Your task to perform on an android device: Open eBay Image 0: 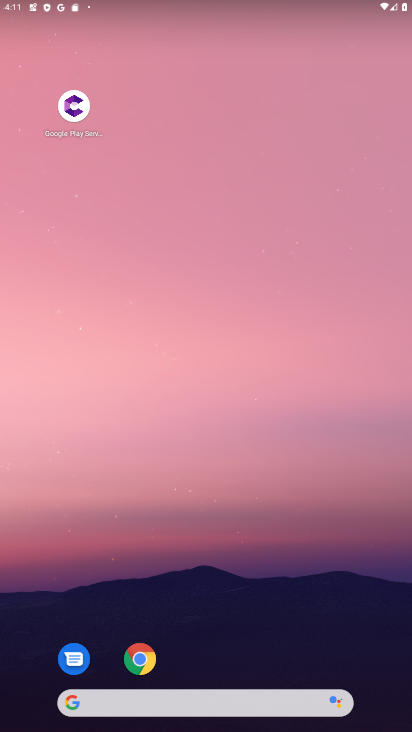
Step 0: click (147, 657)
Your task to perform on an android device: Open eBay Image 1: 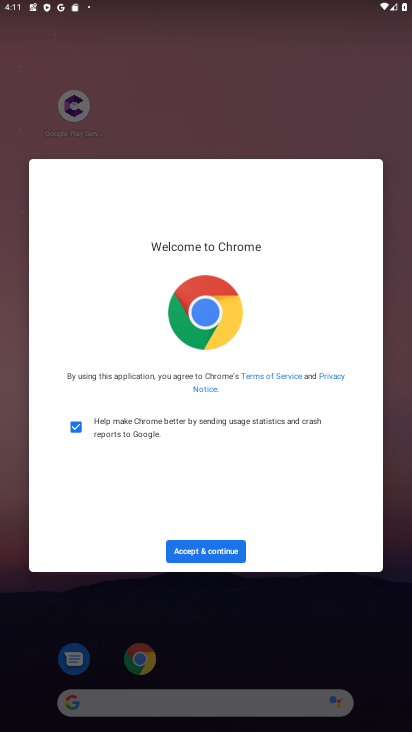
Step 1: click (217, 555)
Your task to perform on an android device: Open eBay Image 2: 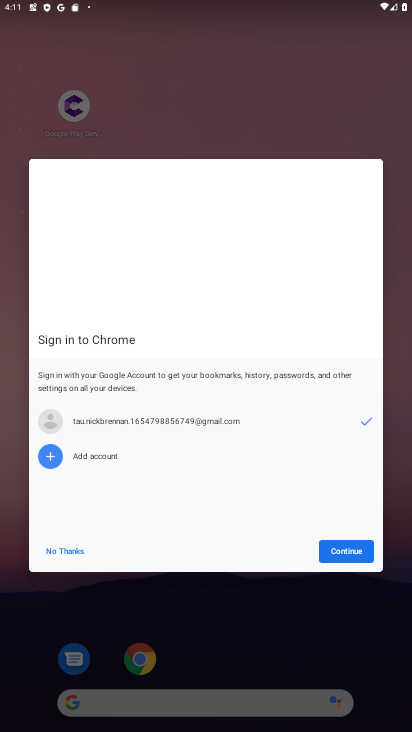
Step 2: click (364, 561)
Your task to perform on an android device: Open eBay Image 3: 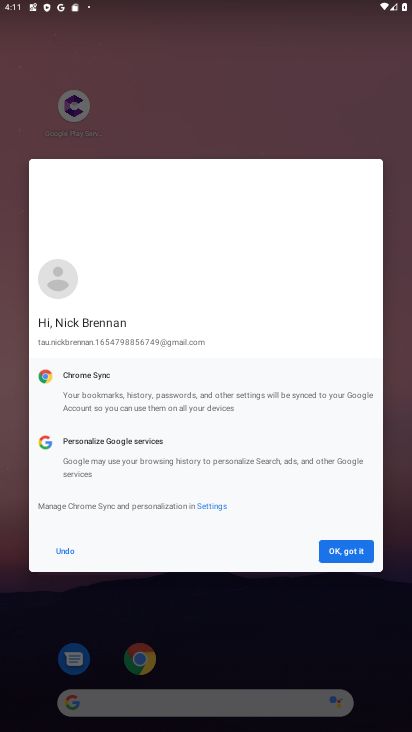
Step 3: click (364, 561)
Your task to perform on an android device: Open eBay Image 4: 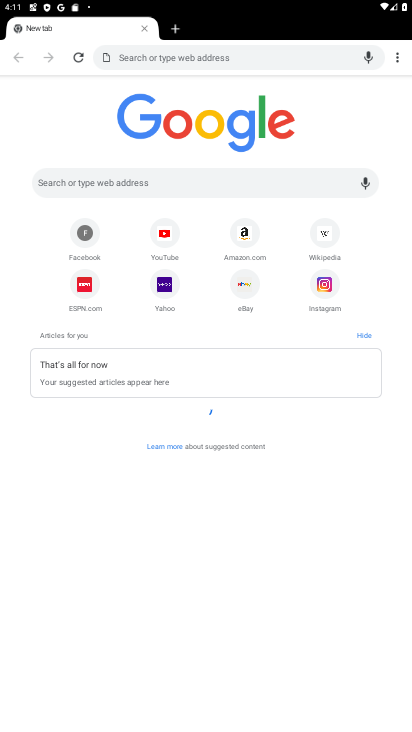
Step 4: click (255, 299)
Your task to perform on an android device: Open eBay Image 5: 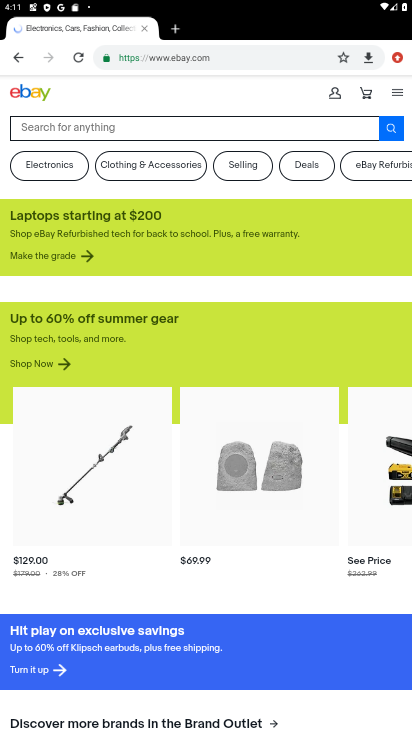
Step 5: task complete